Your task to perform on an android device: Search for "macbook pro" on walmart, select the first entry, and add it to the cart. Image 0: 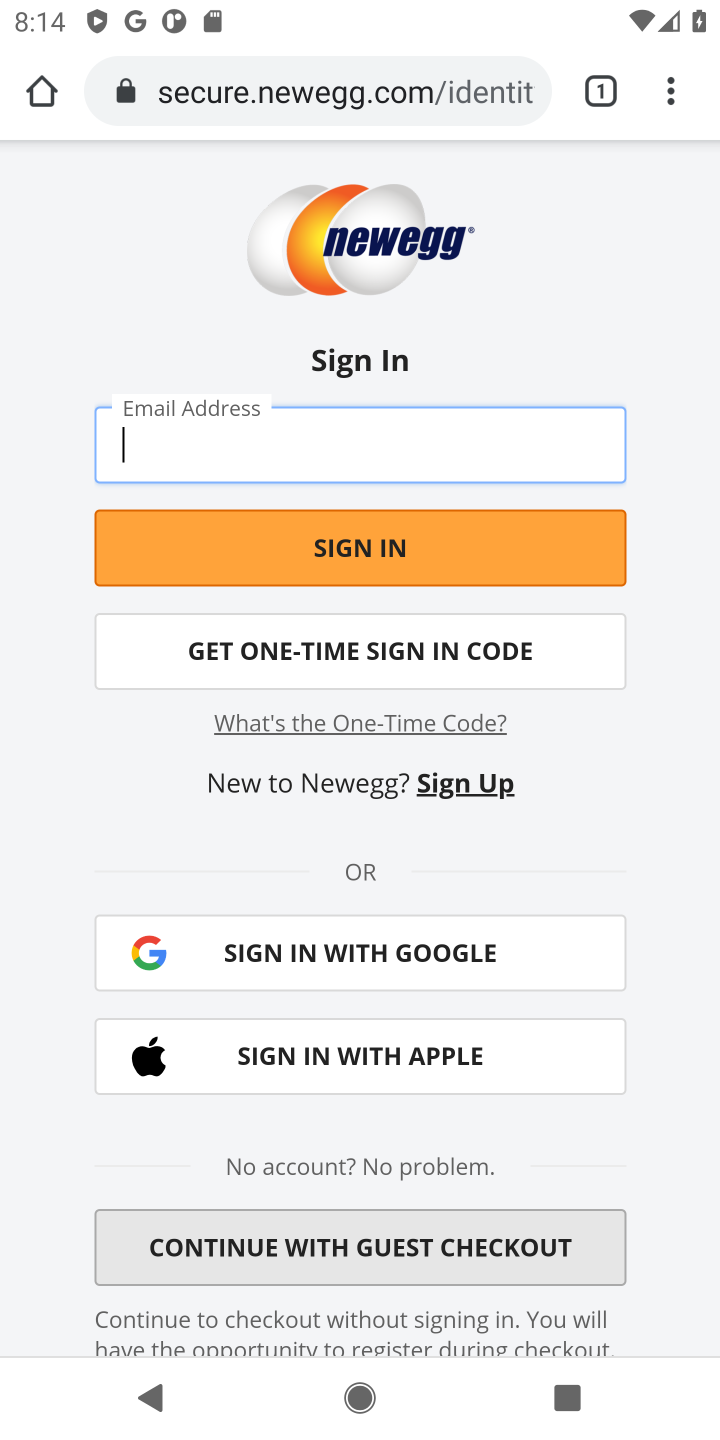
Step 0: press home button
Your task to perform on an android device: Search for "macbook pro" on walmart, select the first entry, and add it to the cart. Image 1: 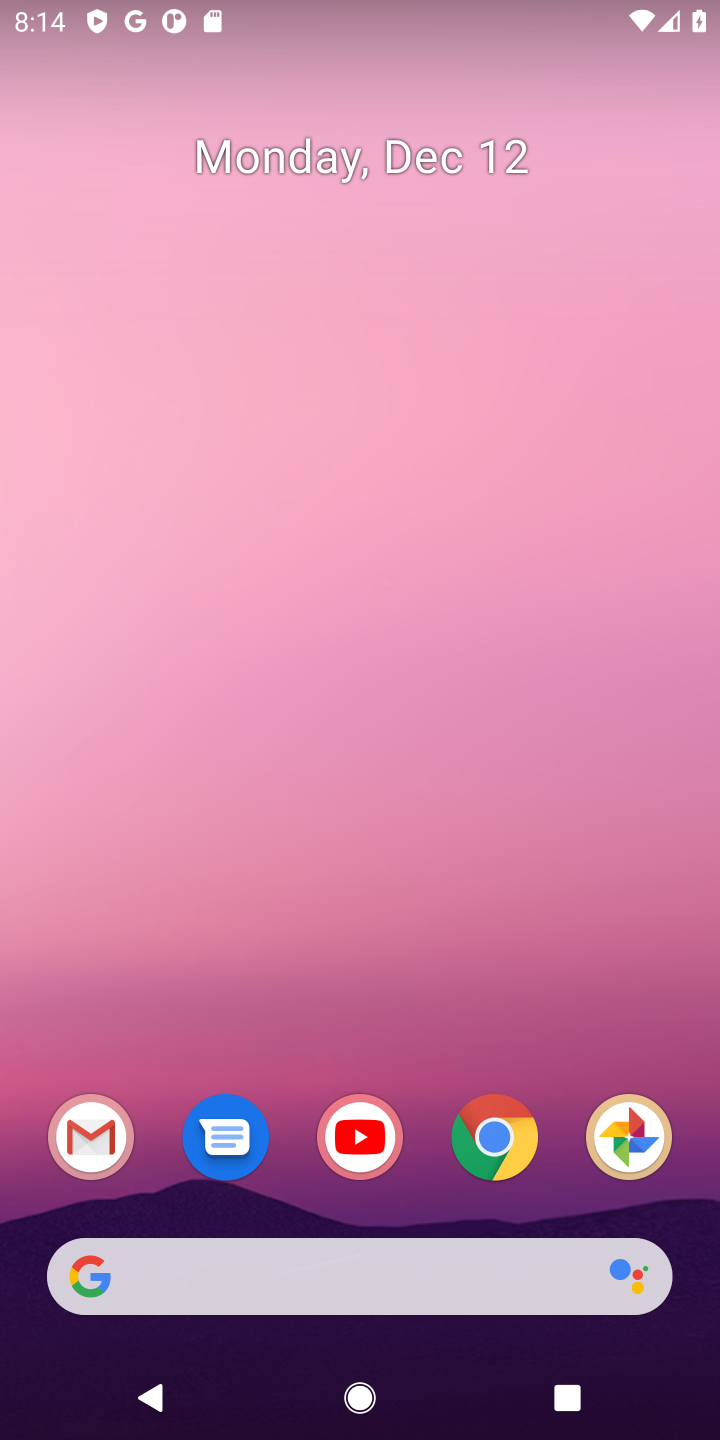
Step 1: click (501, 1147)
Your task to perform on an android device: Search for "macbook pro" on walmart, select the first entry, and add it to the cart. Image 2: 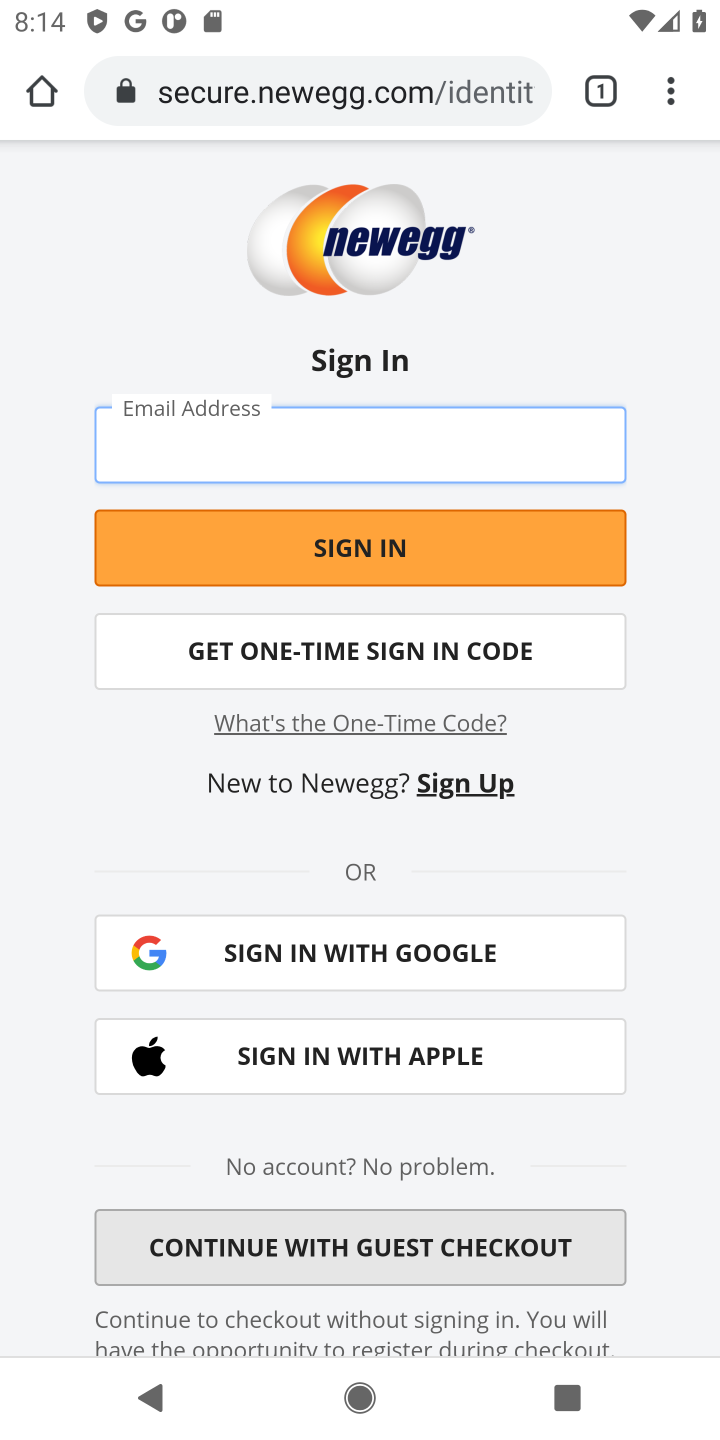
Step 2: click (328, 94)
Your task to perform on an android device: Search for "macbook pro" on walmart, select the first entry, and add it to the cart. Image 3: 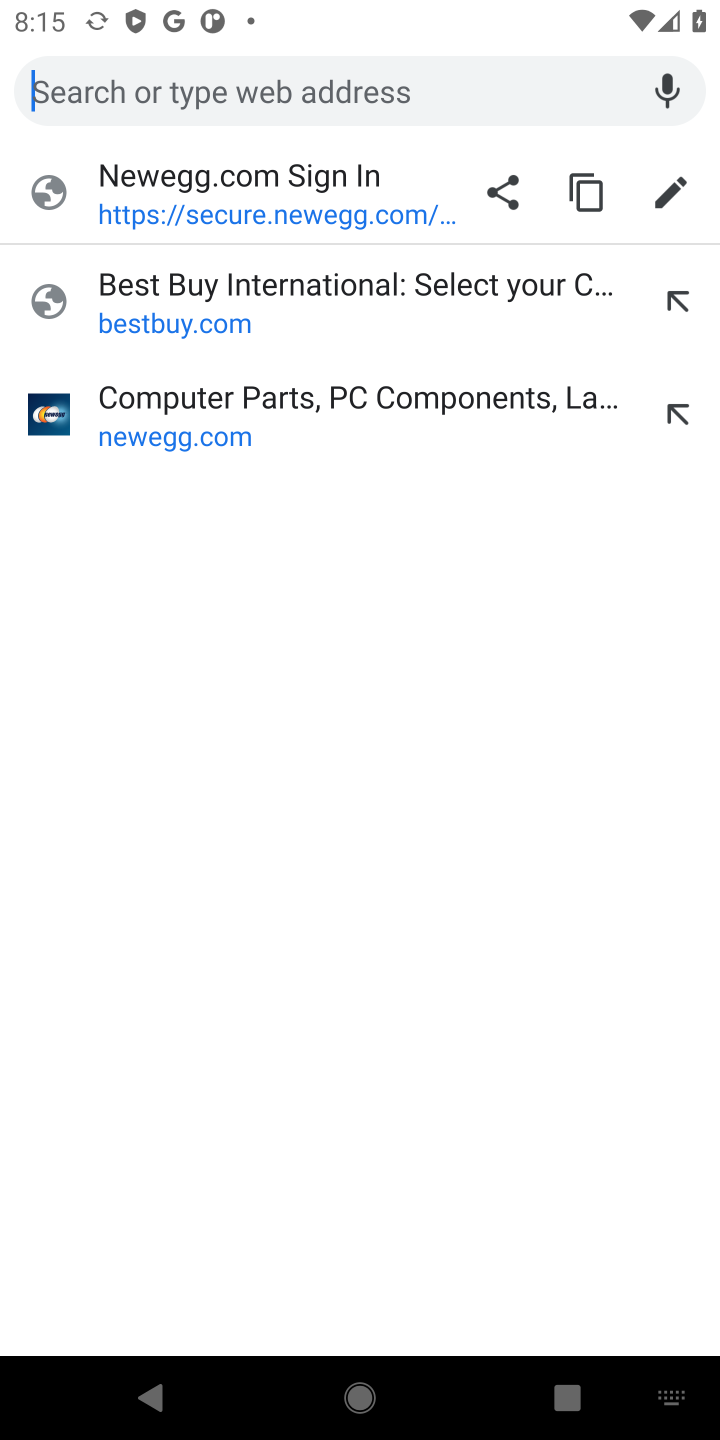
Step 3: type "walmart"
Your task to perform on an android device: Search for "macbook pro" on walmart, select the first entry, and add it to the cart. Image 4: 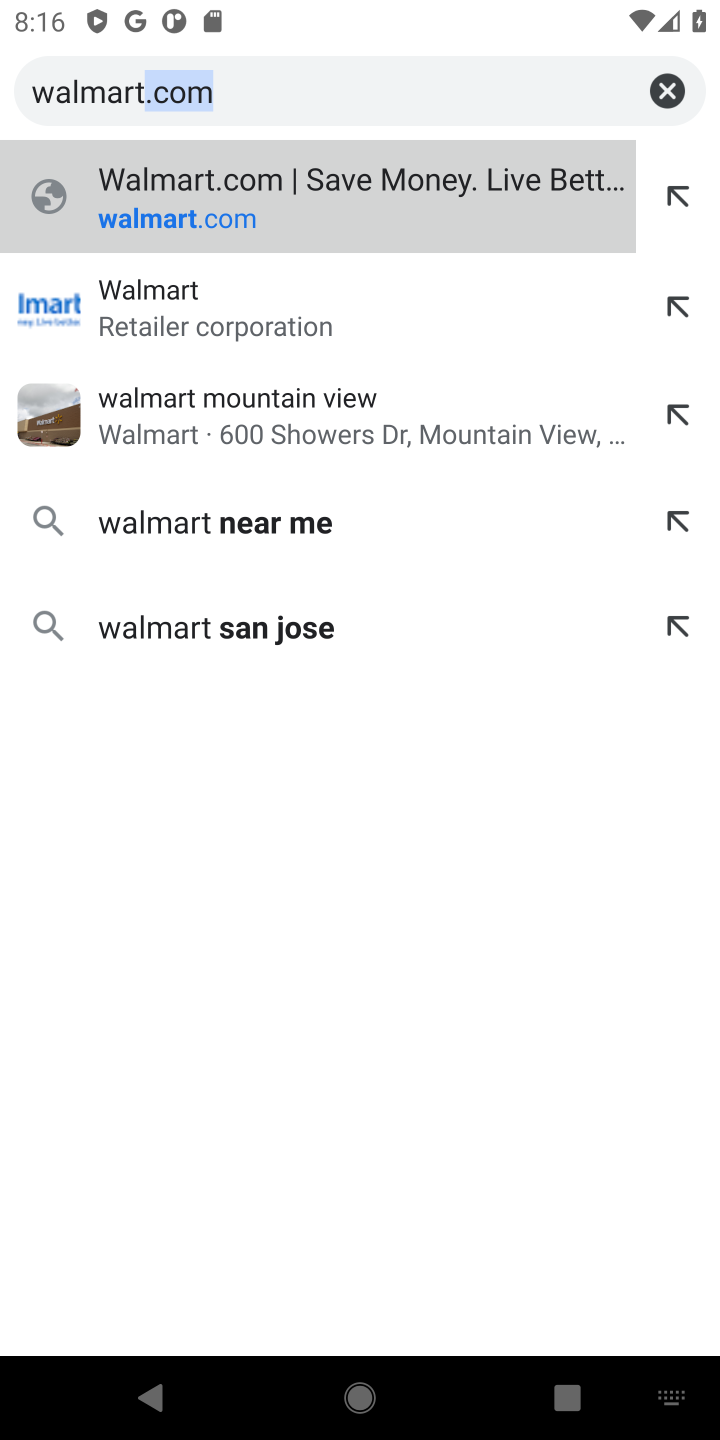
Step 4: click (235, 213)
Your task to perform on an android device: Search for "macbook pro" on walmart, select the first entry, and add it to the cart. Image 5: 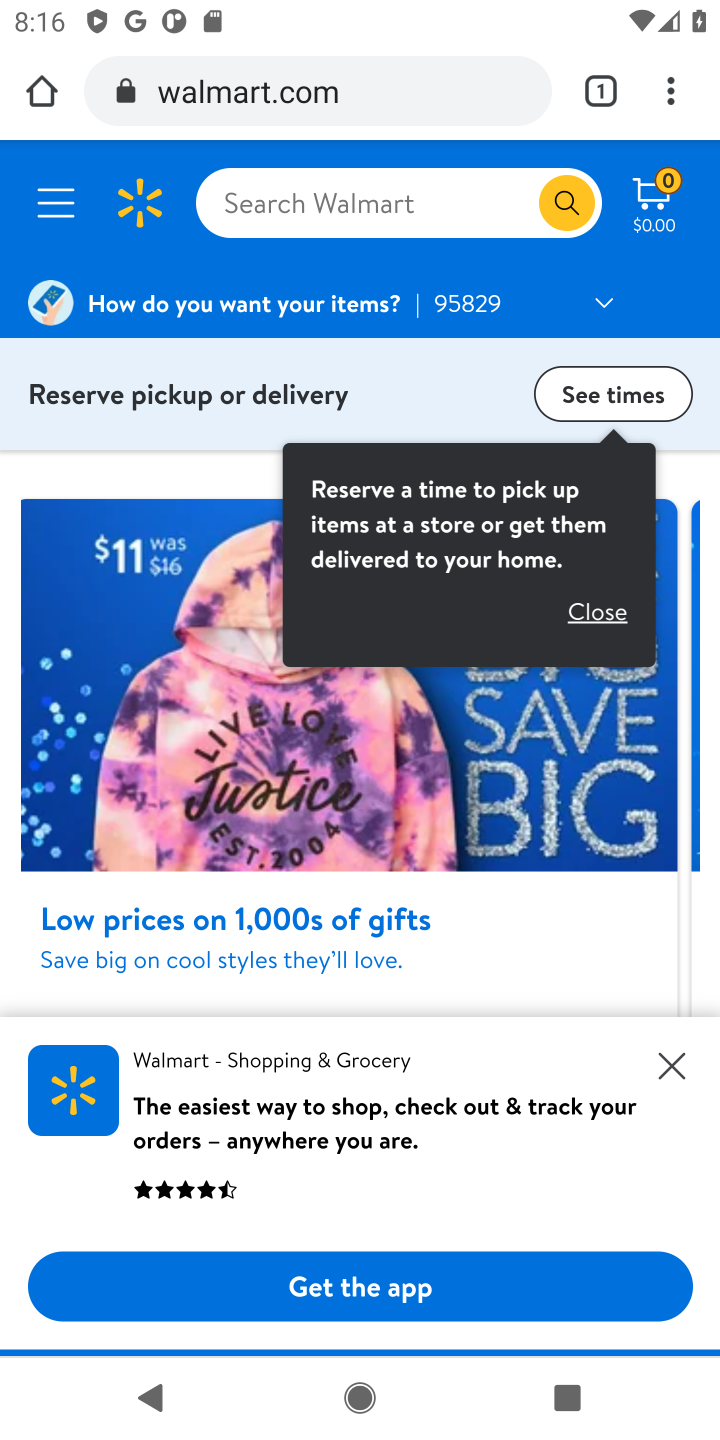
Step 5: click (394, 213)
Your task to perform on an android device: Search for "macbook pro" on walmart, select the first entry, and add it to the cart. Image 6: 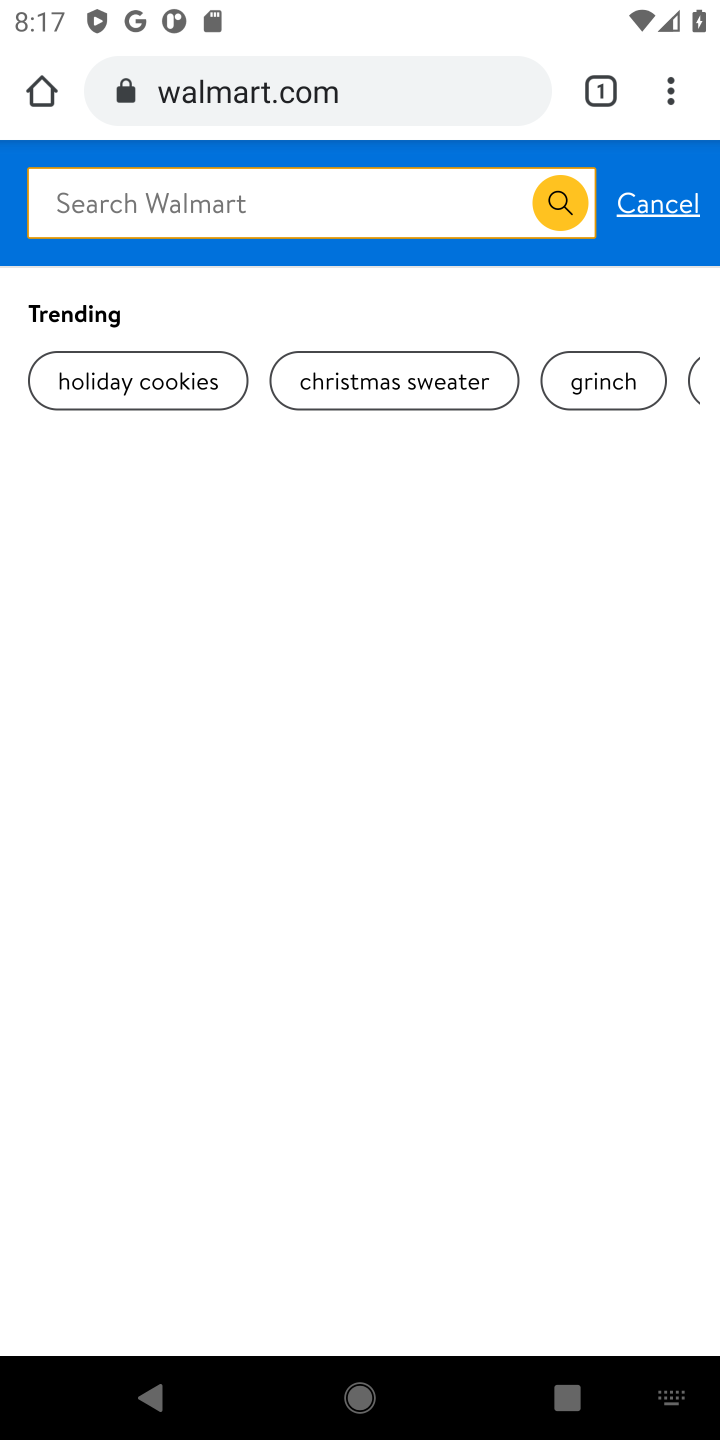
Step 6: type "macbook pro"
Your task to perform on an android device: Search for "macbook pro" on walmart, select the first entry, and add it to the cart. Image 7: 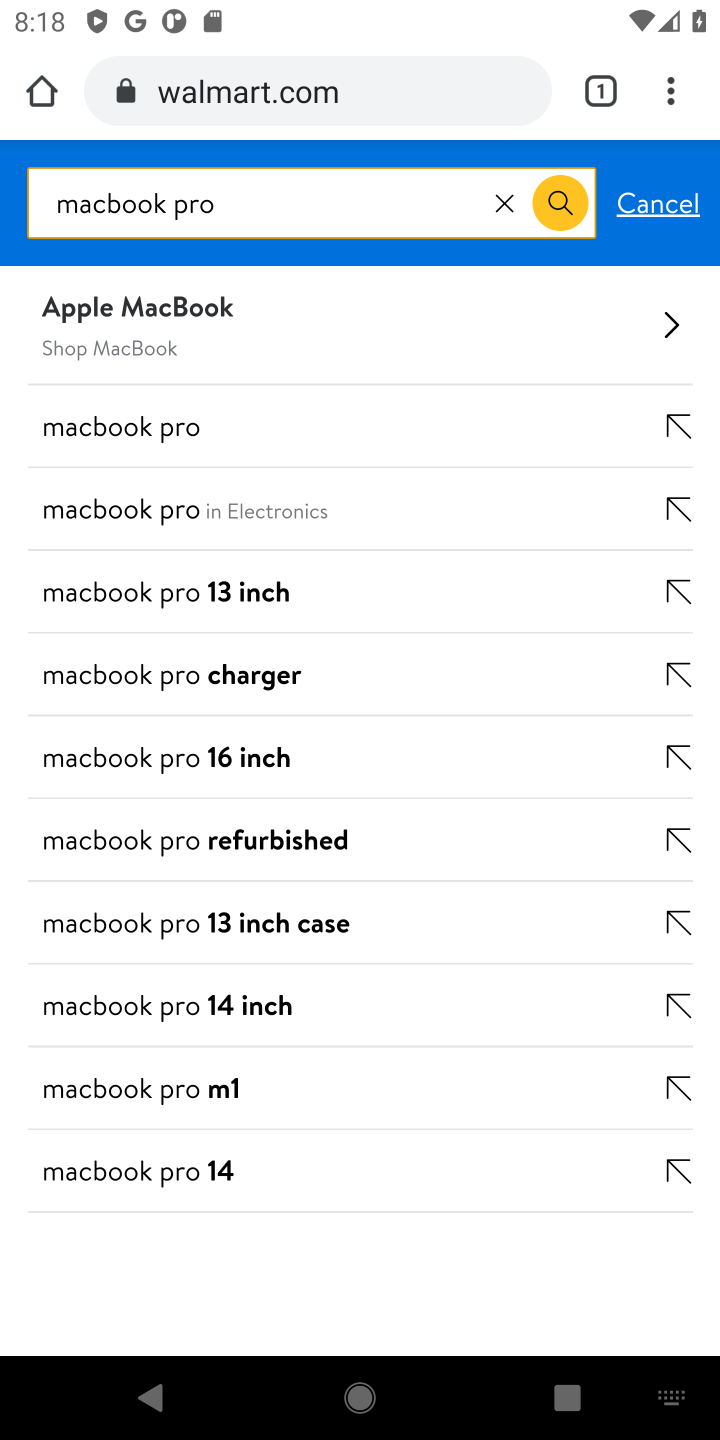
Step 7: click (211, 336)
Your task to perform on an android device: Search for "macbook pro" on walmart, select the first entry, and add it to the cart. Image 8: 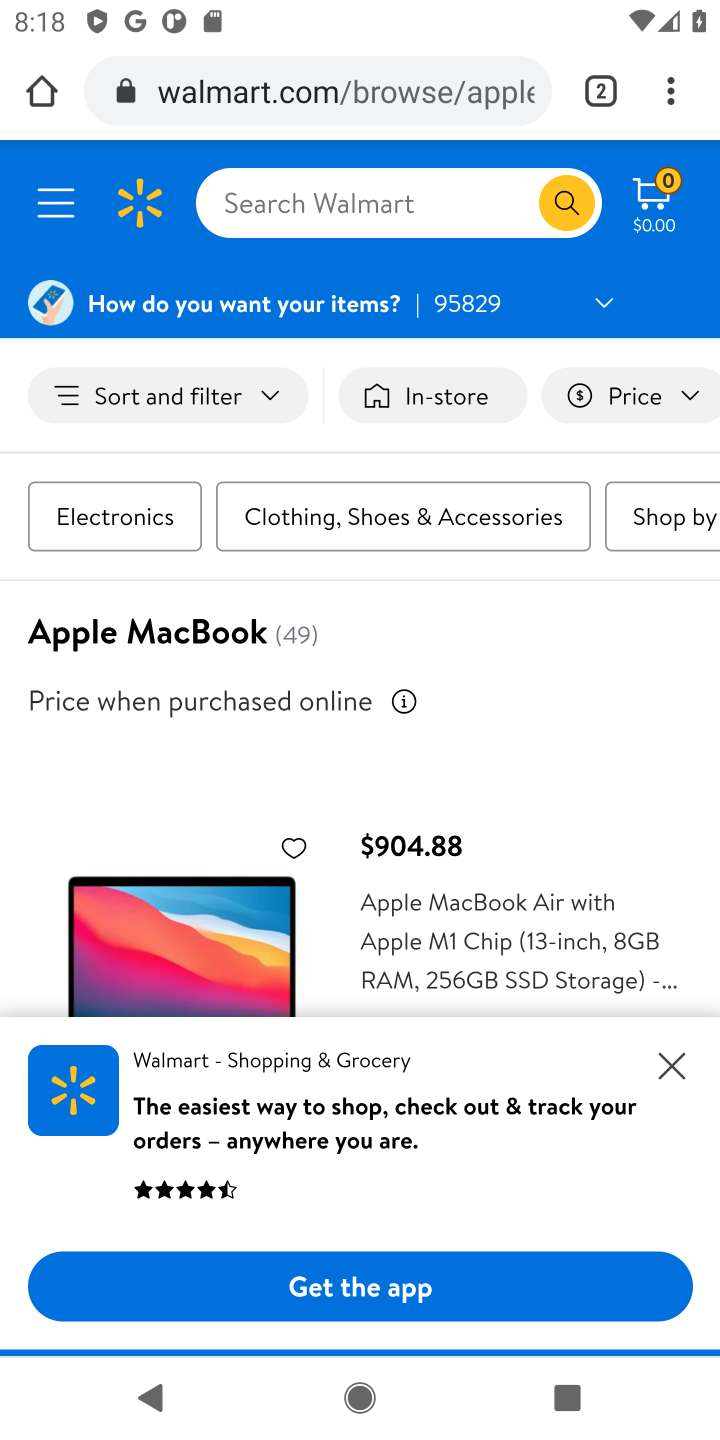
Step 8: click (583, 911)
Your task to perform on an android device: Search for "macbook pro" on walmart, select the first entry, and add it to the cart. Image 9: 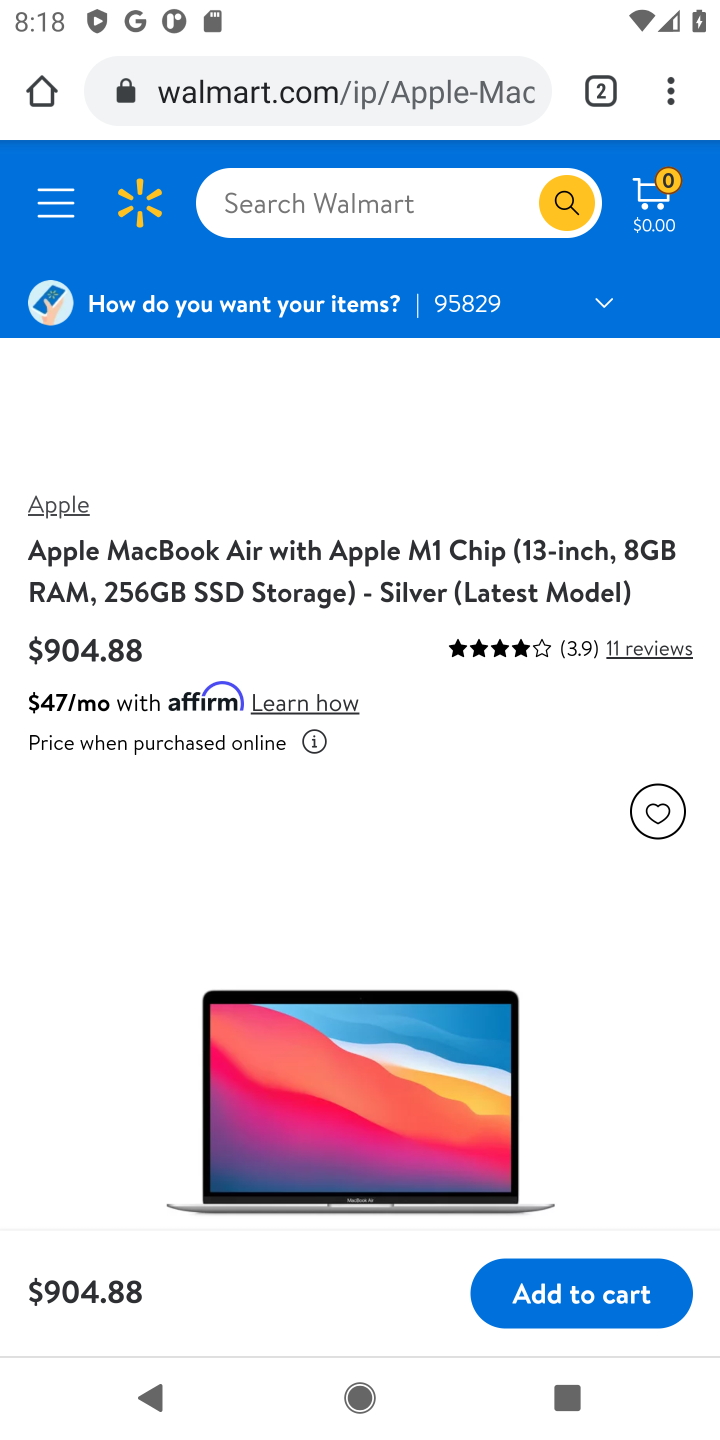
Step 9: click (581, 1286)
Your task to perform on an android device: Search for "macbook pro" on walmart, select the first entry, and add it to the cart. Image 10: 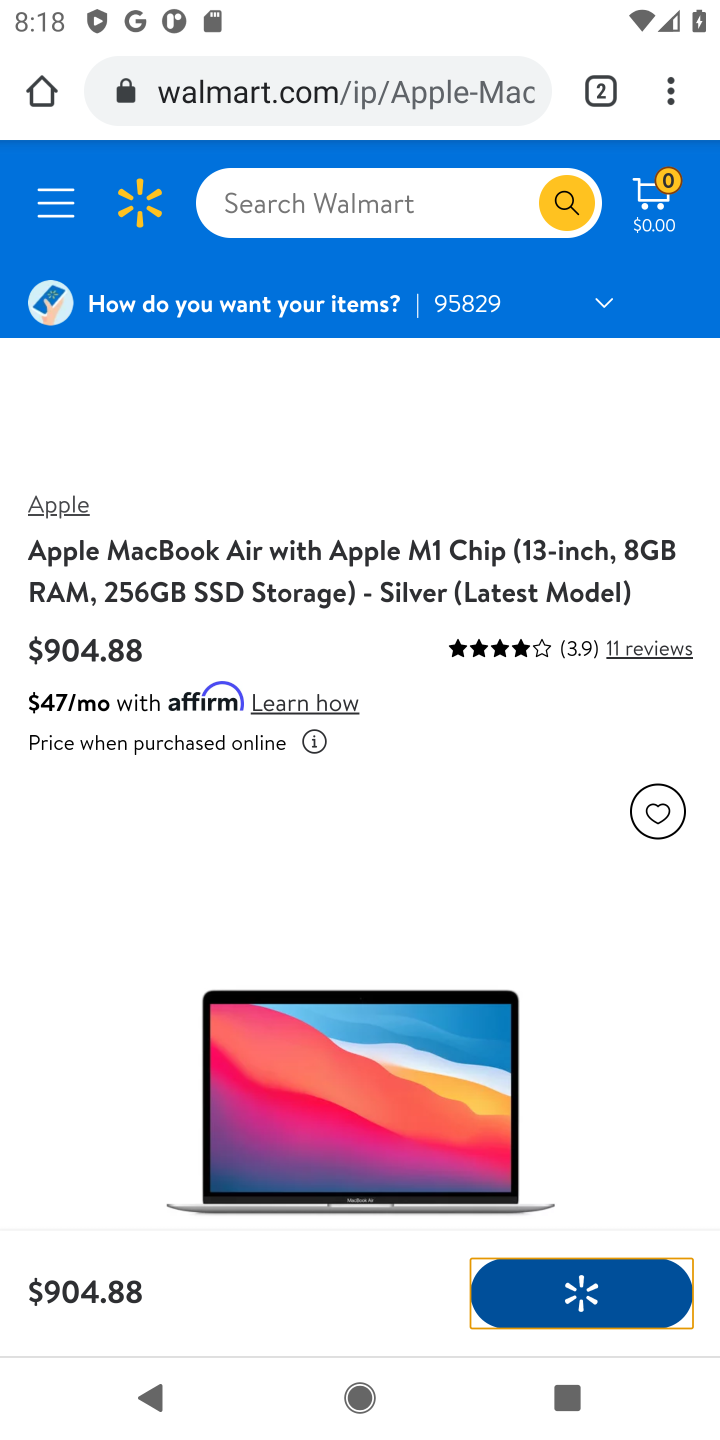
Step 10: task complete